Your task to perform on an android device: Go to network settings Image 0: 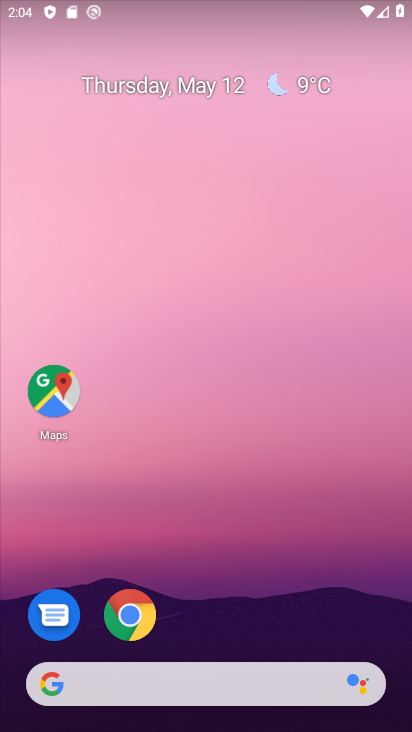
Step 0: drag from (196, 695) to (140, 176)
Your task to perform on an android device: Go to network settings Image 1: 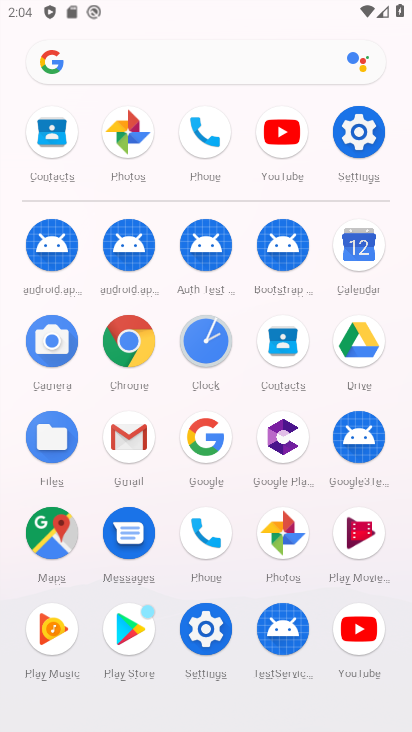
Step 1: click (358, 127)
Your task to perform on an android device: Go to network settings Image 2: 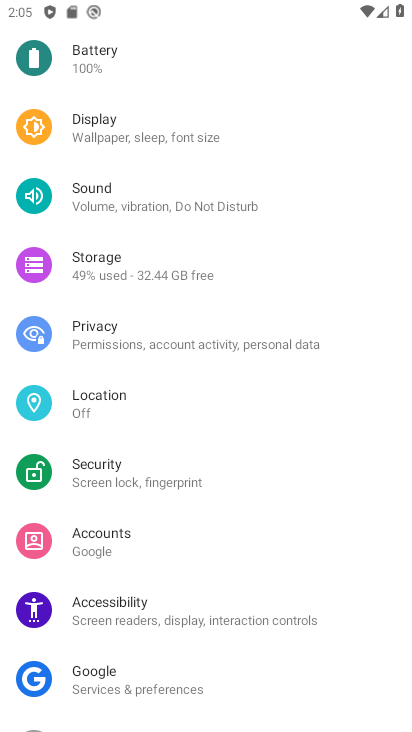
Step 2: drag from (157, 128) to (181, 600)
Your task to perform on an android device: Go to network settings Image 3: 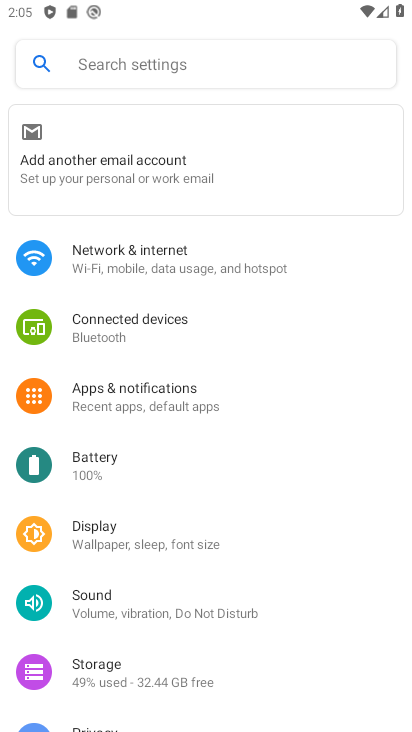
Step 3: click (109, 262)
Your task to perform on an android device: Go to network settings Image 4: 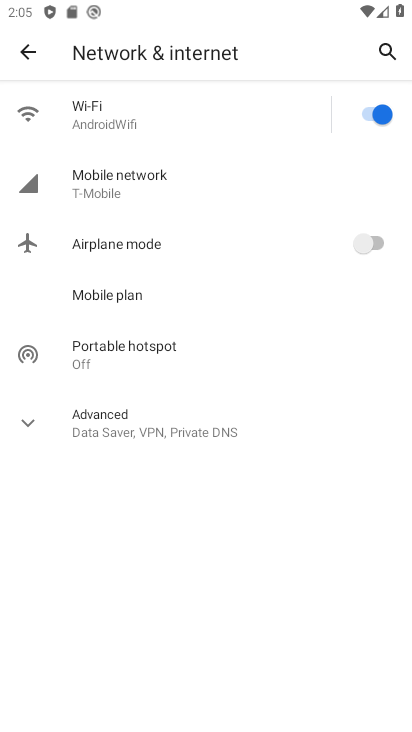
Step 4: task complete